Your task to perform on an android device: Open Google Chrome and open the bookmarks view Image 0: 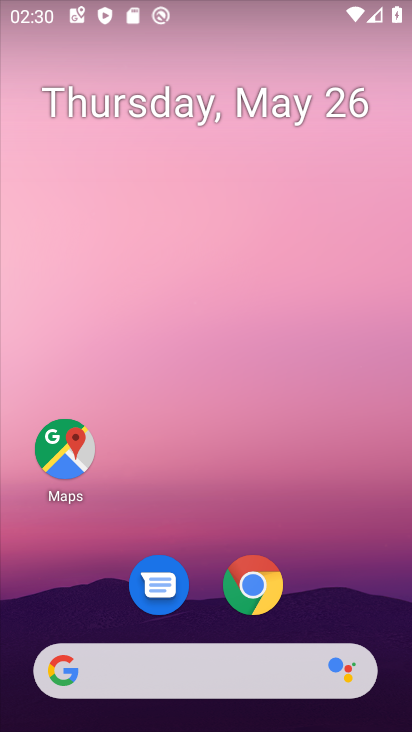
Step 0: click (255, 585)
Your task to perform on an android device: Open Google Chrome and open the bookmarks view Image 1: 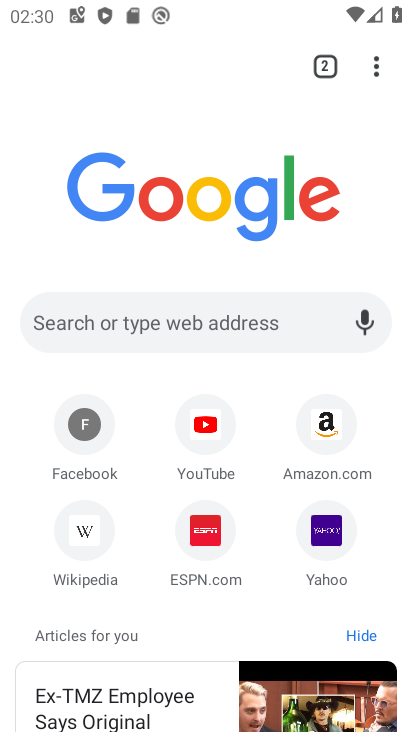
Step 1: click (373, 67)
Your task to perform on an android device: Open Google Chrome and open the bookmarks view Image 2: 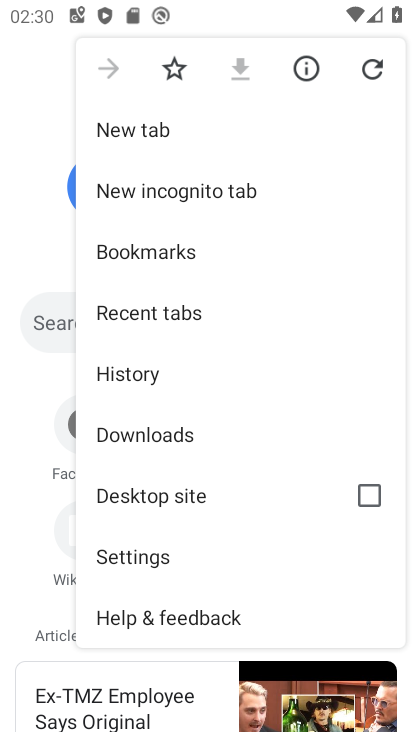
Step 2: click (207, 256)
Your task to perform on an android device: Open Google Chrome and open the bookmarks view Image 3: 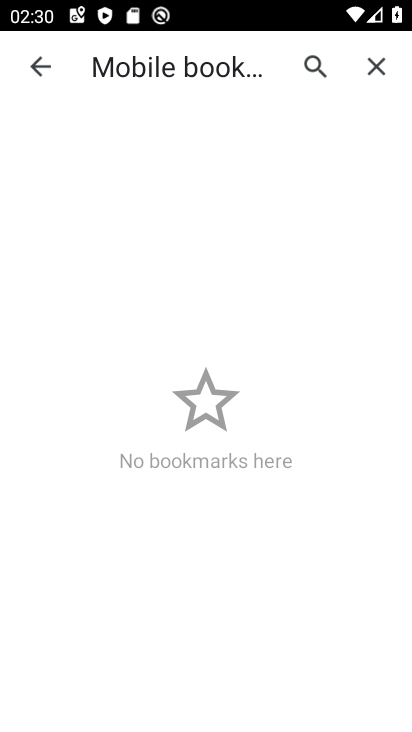
Step 3: task complete